Your task to perform on an android device: Go to internet settings Image 0: 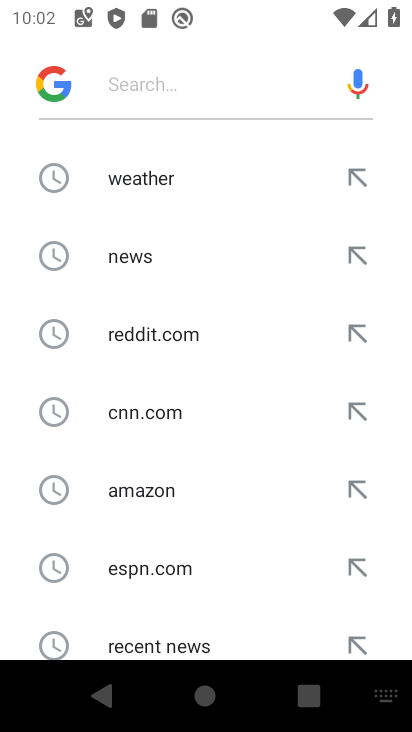
Step 0: press back button
Your task to perform on an android device: Go to internet settings Image 1: 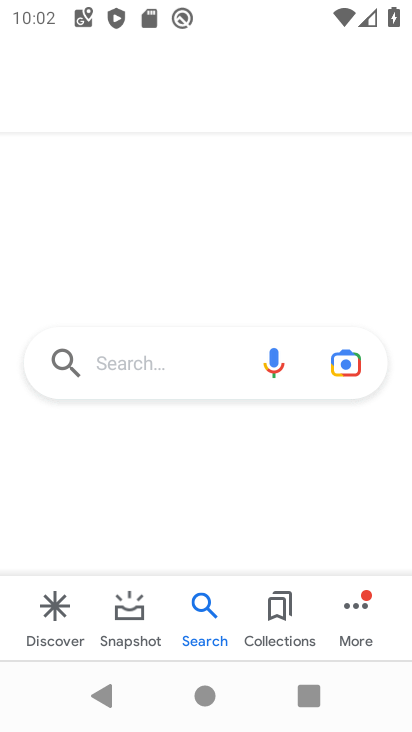
Step 1: drag from (65, 453) to (182, 195)
Your task to perform on an android device: Go to internet settings Image 2: 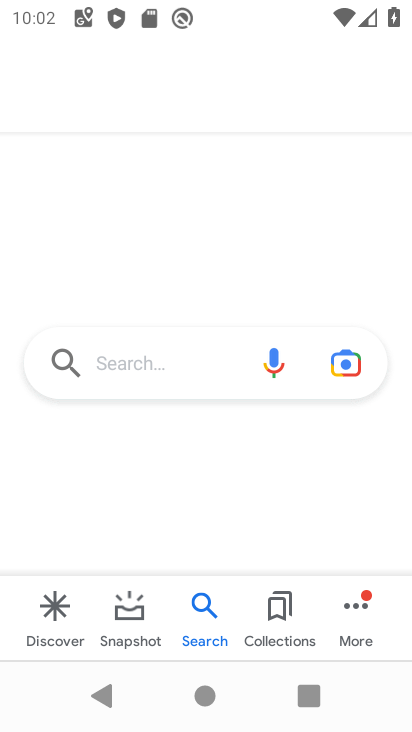
Step 2: press back button
Your task to perform on an android device: Go to internet settings Image 3: 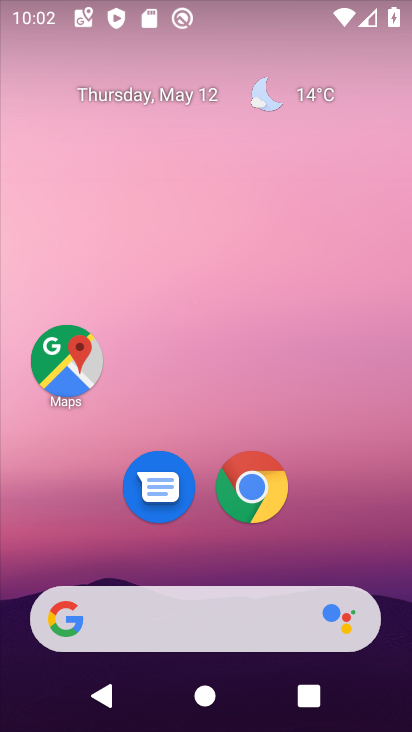
Step 3: drag from (23, 579) to (272, 204)
Your task to perform on an android device: Go to internet settings Image 4: 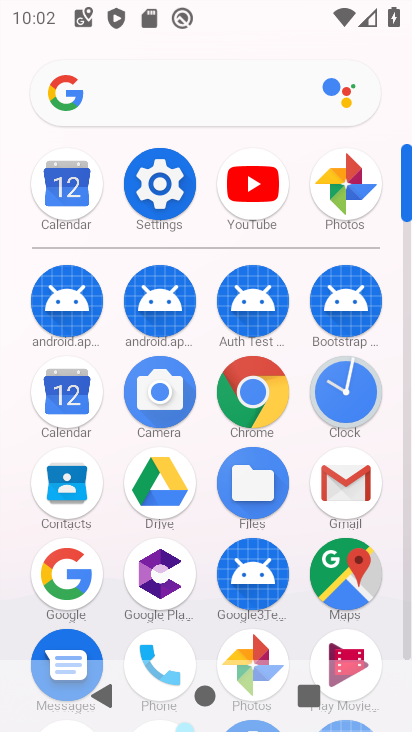
Step 4: click (172, 195)
Your task to perform on an android device: Go to internet settings Image 5: 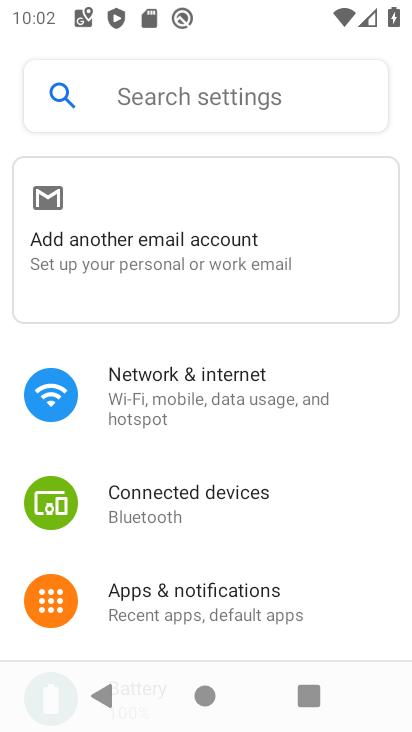
Step 5: click (201, 398)
Your task to perform on an android device: Go to internet settings Image 6: 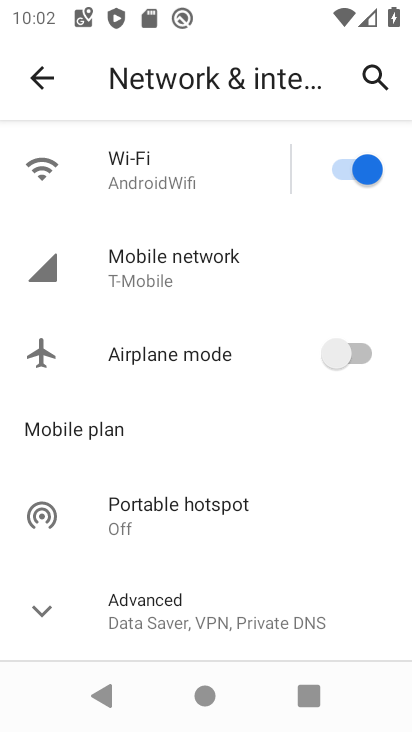
Step 6: click (143, 261)
Your task to perform on an android device: Go to internet settings Image 7: 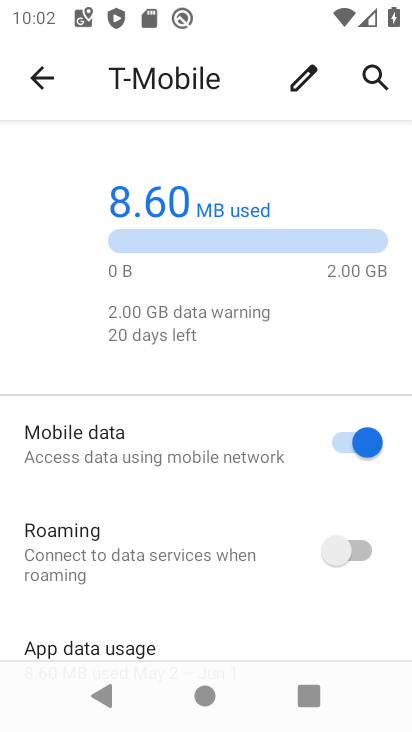
Step 7: task complete